Your task to perform on an android device: turn on sleep mode Image 0: 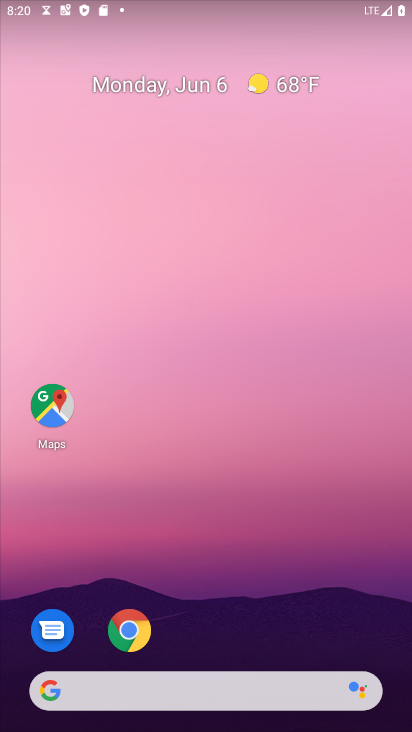
Step 0: drag from (278, 583) to (223, 100)
Your task to perform on an android device: turn on sleep mode Image 1: 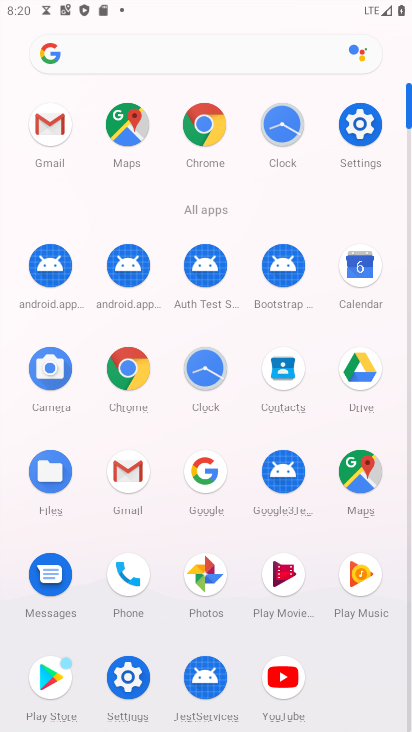
Step 1: click (362, 123)
Your task to perform on an android device: turn on sleep mode Image 2: 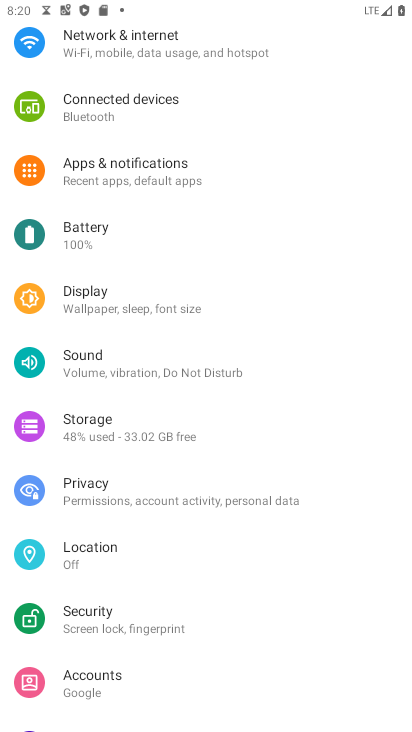
Step 2: click (136, 314)
Your task to perform on an android device: turn on sleep mode Image 3: 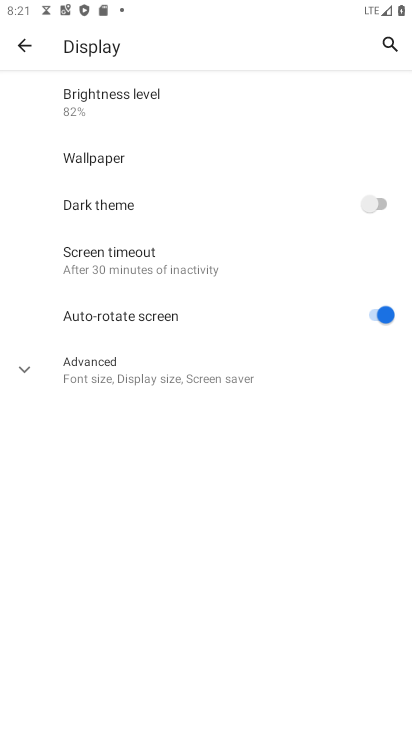
Step 3: click (152, 259)
Your task to perform on an android device: turn on sleep mode Image 4: 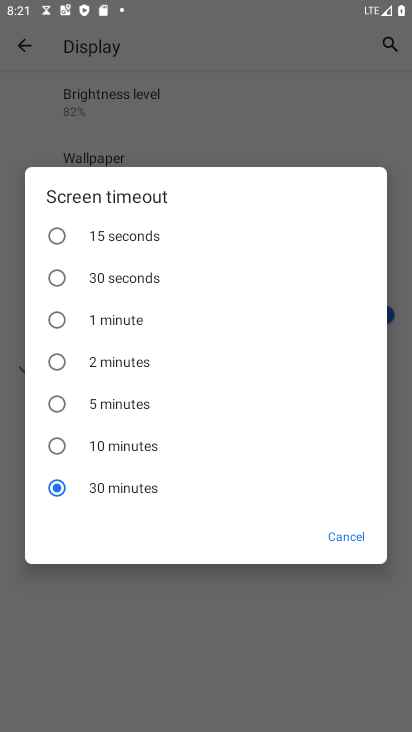
Step 4: click (206, 161)
Your task to perform on an android device: turn on sleep mode Image 5: 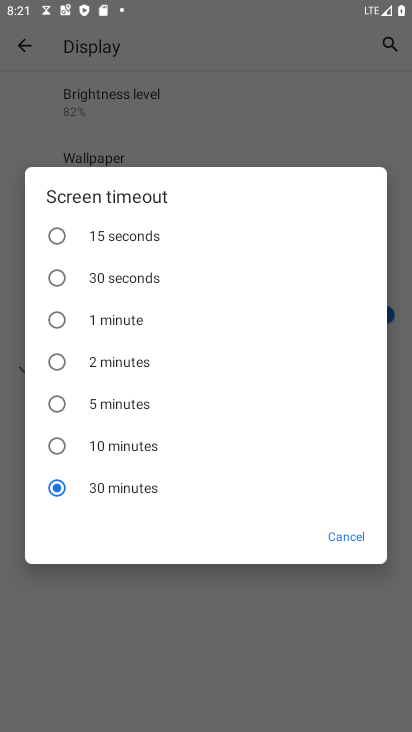
Step 5: click (337, 535)
Your task to perform on an android device: turn on sleep mode Image 6: 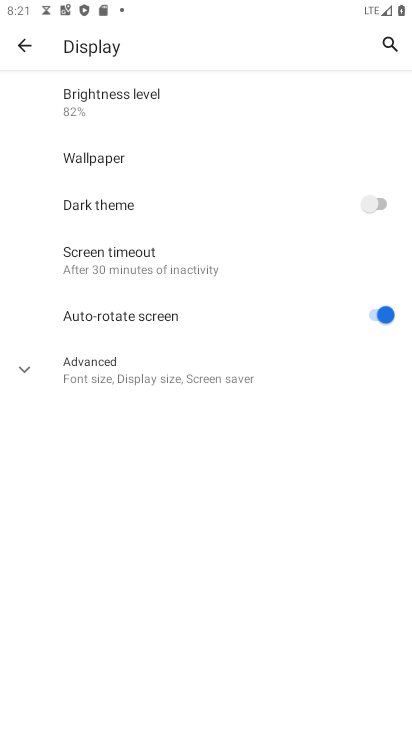
Step 6: click (150, 382)
Your task to perform on an android device: turn on sleep mode Image 7: 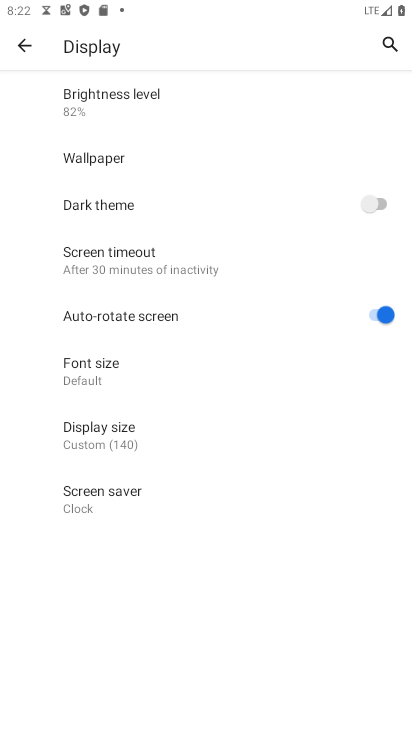
Step 7: task complete